Your task to perform on an android device: add a contact in the contacts app Image 0: 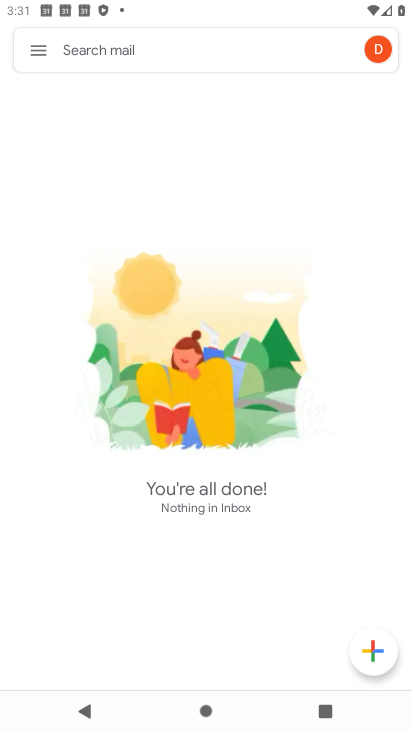
Step 0: task complete